Your task to perform on an android device: allow cookies in the chrome app Image 0: 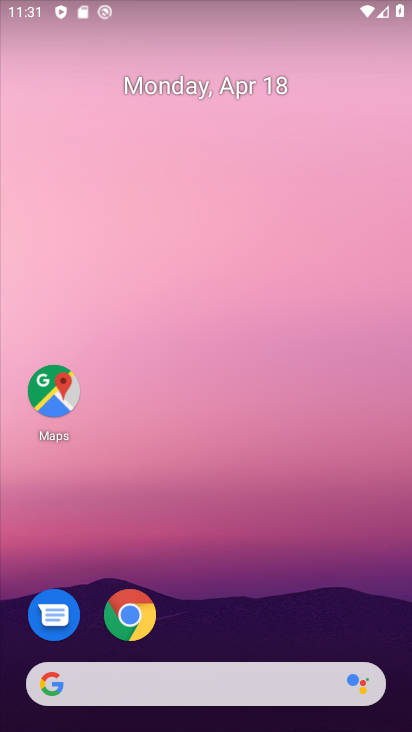
Step 0: click (129, 616)
Your task to perform on an android device: allow cookies in the chrome app Image 1: 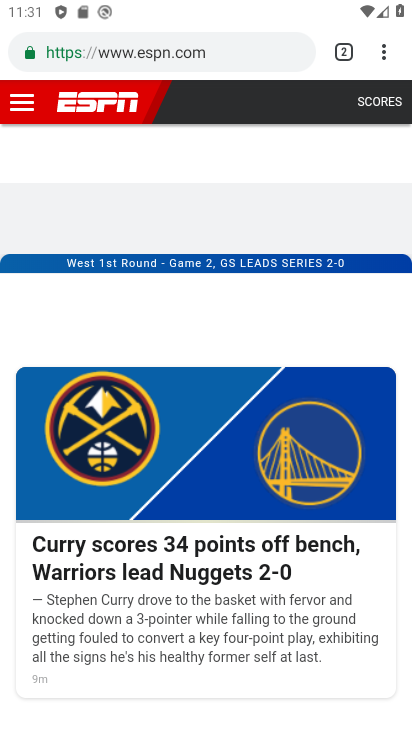
Step 1: click (384, 49)
Your task to perform on an android device: allow cookies in the chrome app Image 2: 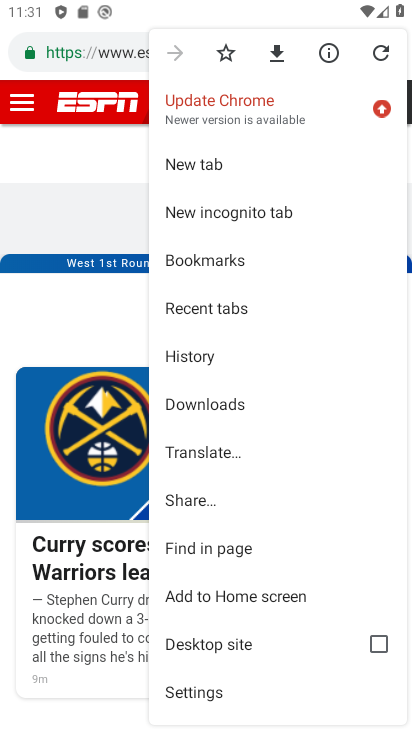
Step 2: click (196, 689)
Your task to perform on an android device: allow cookies in the chrome app Image 3: 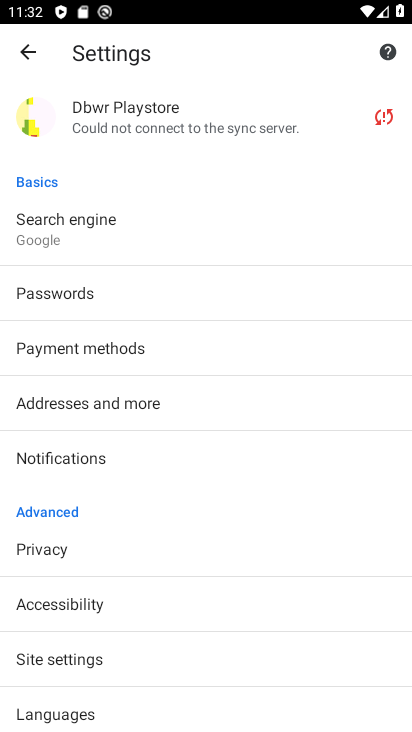
Step 3: click (87, 662)
Your task to perform on an android device: allow cookies in the chrome app Image 4: 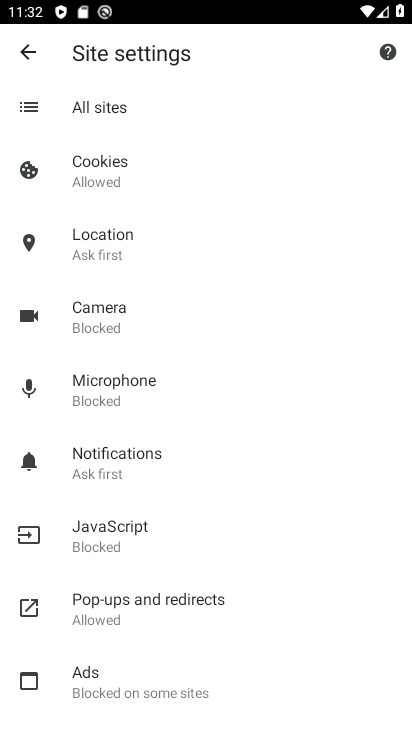
Step 4: click (101, 173)
Your task to perform on an android device: allow cookies in the chrome app Image 5: 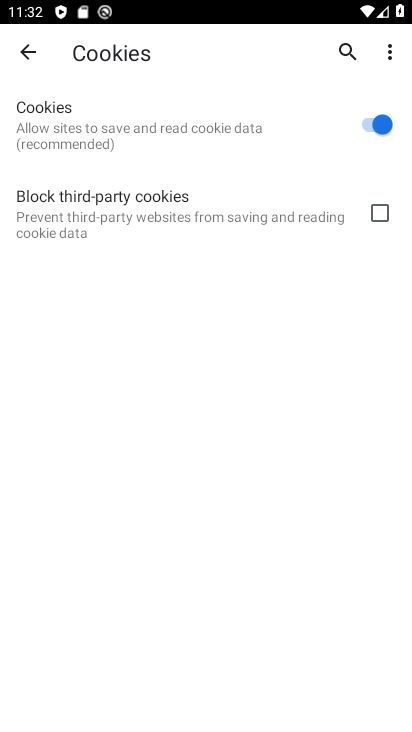
Step 5: task complete